Your task to perform on an android device: change your default location settings in chrome Image 0: 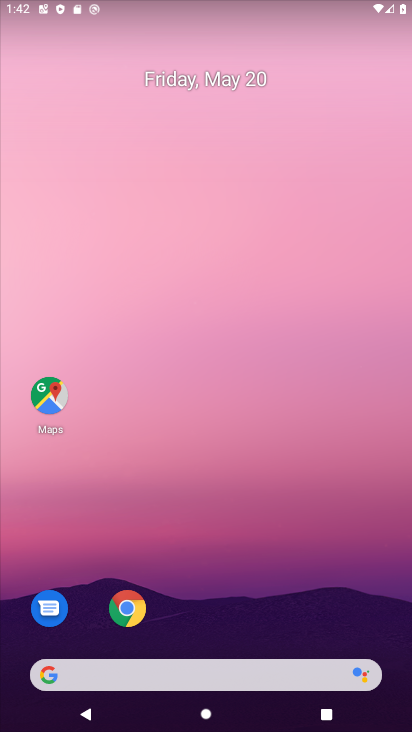
Step 0: click (118, 608)
Your task to perform on an android device: change your default location settings in chrome Image 1: 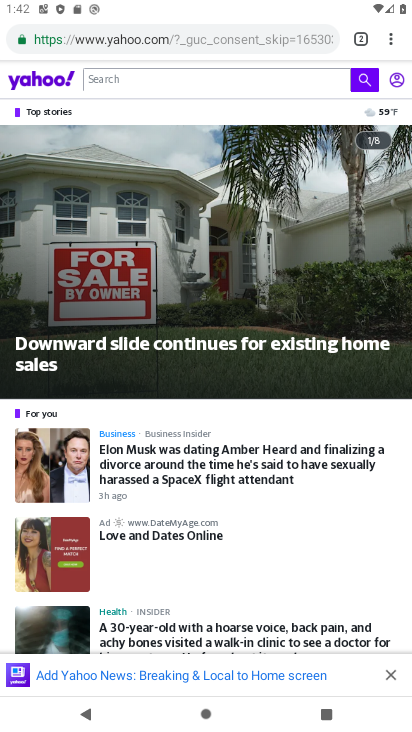
Step 1: click (388, 43)
Your task to perform on an android device: change your default location settings in chrome Image 2: 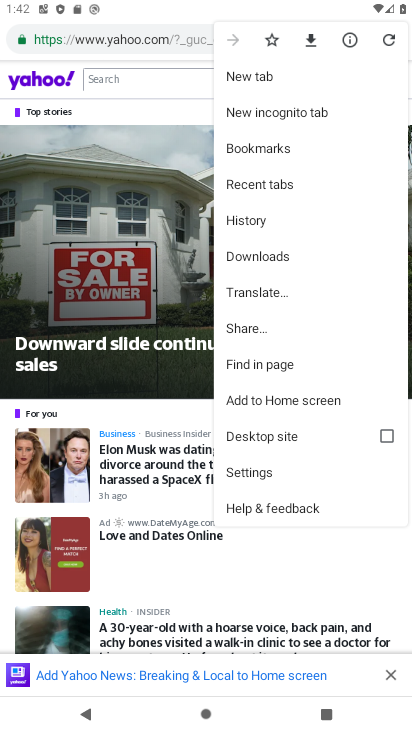
Step 2: click (266, 476)
Your task to perform on an android device: change your default location settings in chrome Image 3: 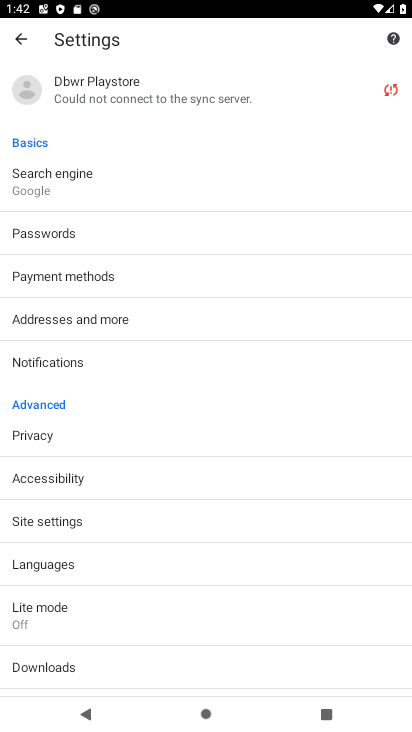
Step 3: click (59, 514)
Your task to perform on an android device: change your default location settings in chrome Image 4: 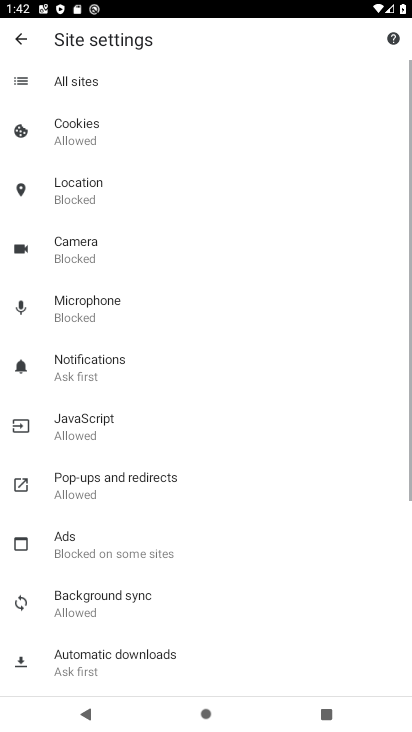
Step 4: click (78, 185)
Your task to perform on an android device: change your default location settings in chrome Image 5: 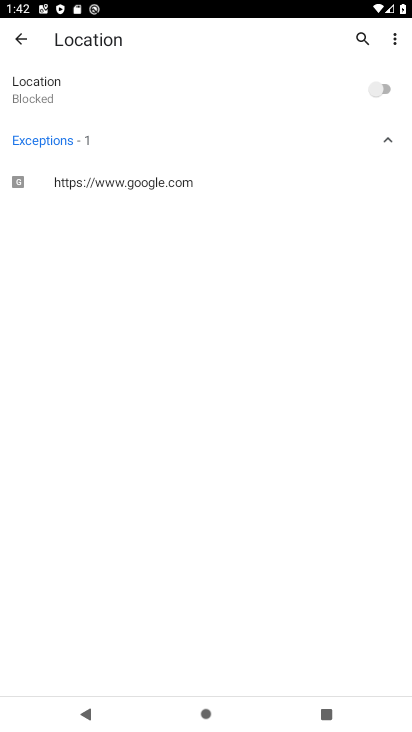
Step 5: click (372, 84)
Your task to perform on an android device: change your default location settings in chrome Image 6: 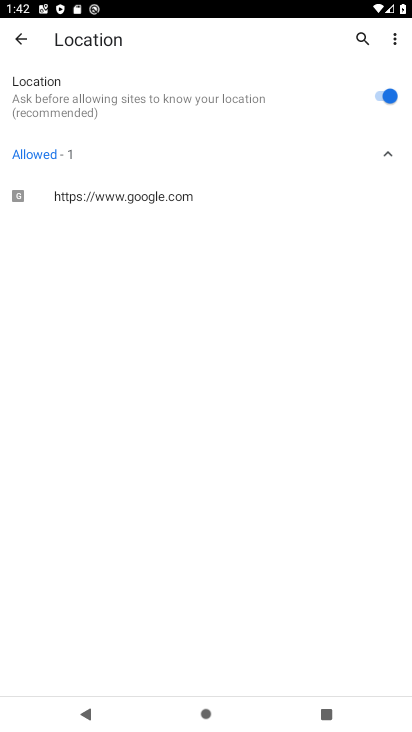
Step 6: task complete